Your task to perform on an android device: Go to privacy settings Image 0: 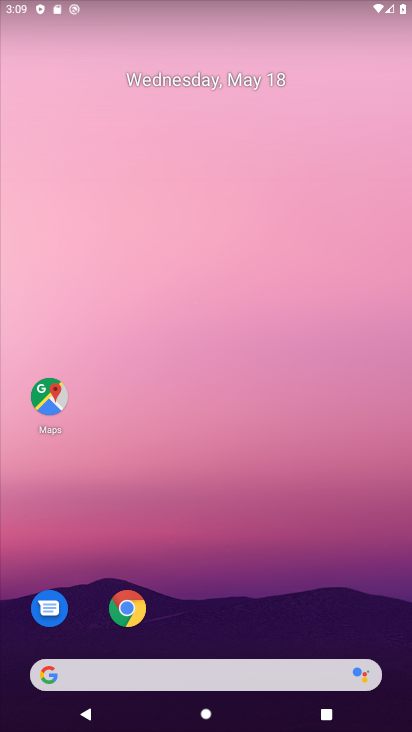
Step 0: drag from (206, 653) to (278, 186)
Your task to perform on an android device: Go to privacy settings Image 1: 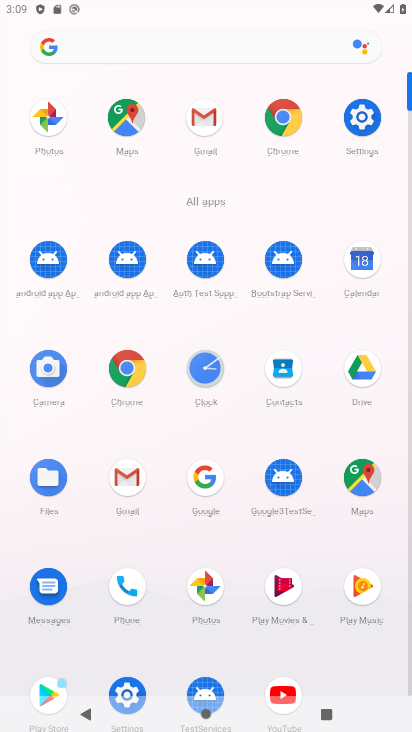
Step 1: click (366, 116)
Your task to perform on an android device: Go to privacy settings Image 2: 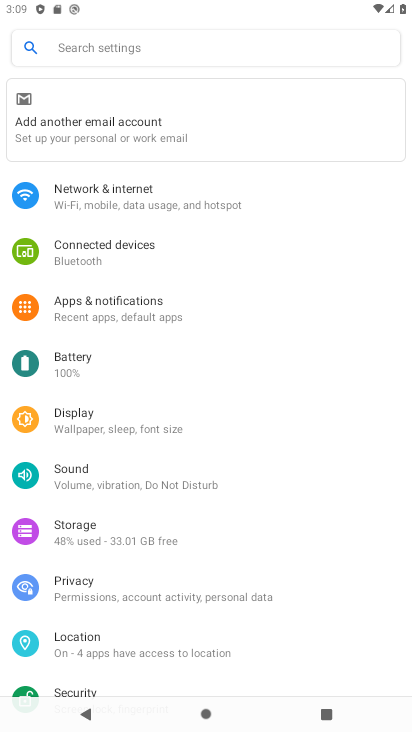
Step 2: click (75, 583)
Your task to perform on an android device: Go to privacy settings Image 3: 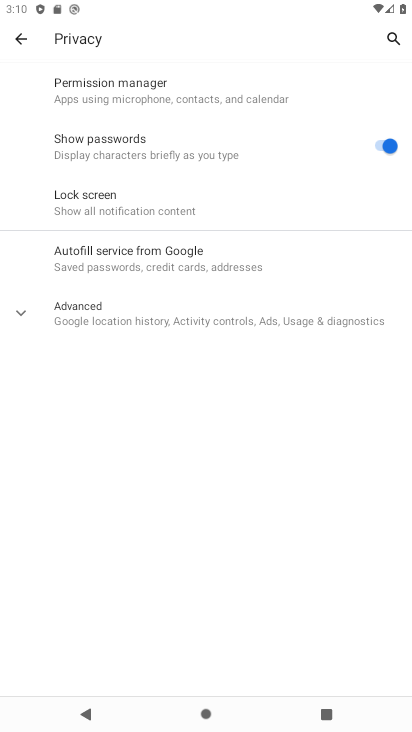
Step 3: click (116, 323)
Your task to perform on an android device: Go to privacy settings Image 4: 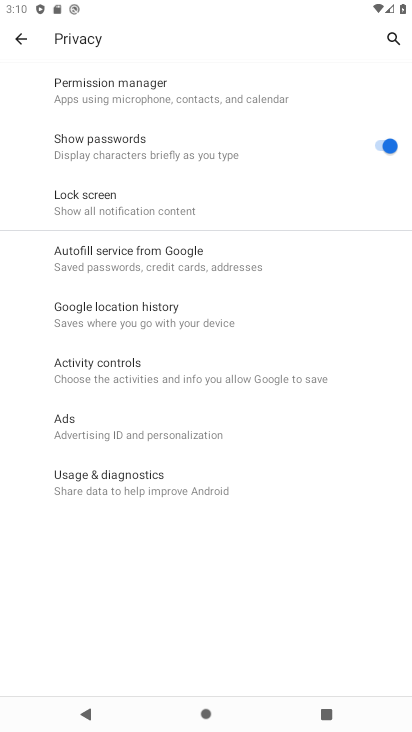
Step 4: task complete